Your task to perform on an android device: empty trash in the gmail app Image 0: 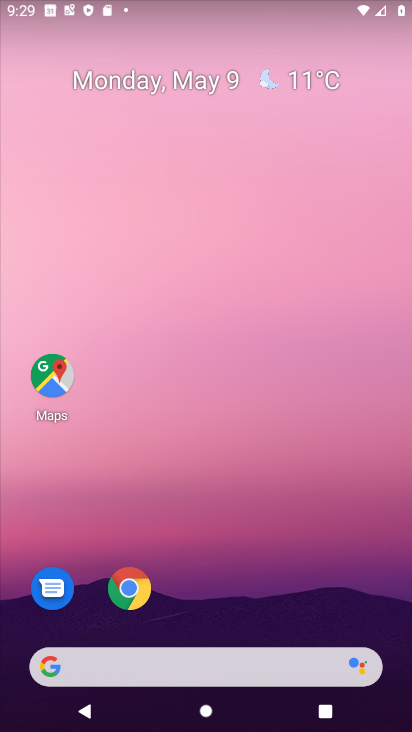
Step 0: drag from (187, 667) to (313, 82)
Your task to perform on an android device: empty trash in the gmail app Image 1: 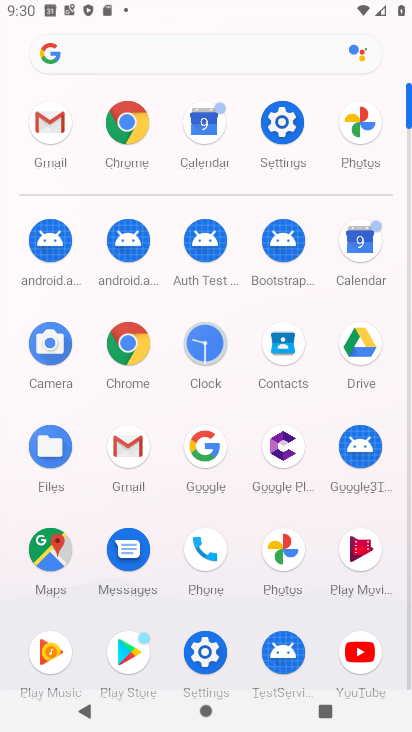
Step 1: click (56, 133)
Your task to perform on an android device: empty trash in the gmail app Image 2: 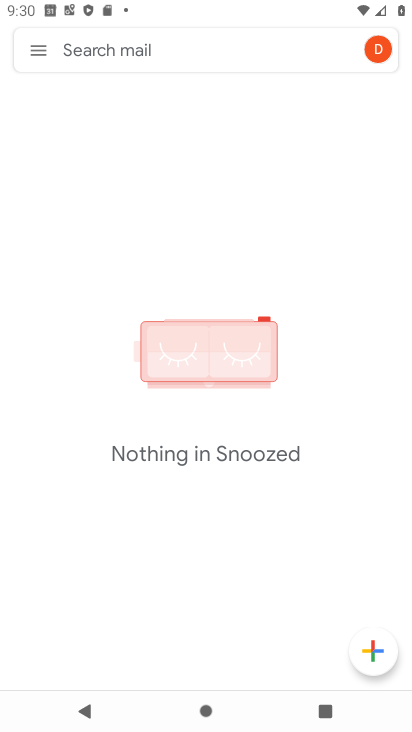
Step 2: click (35, 53)
Your task to perform on an android device: empty trash in the gmail app Image 3: 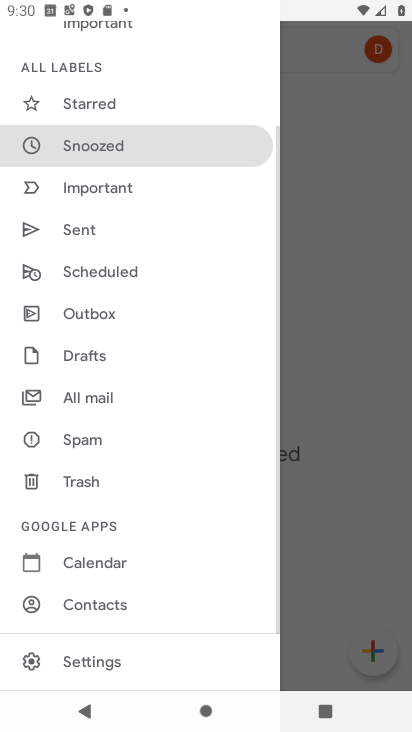
Step 3: click (82, 487)
Your task to perform on an android device: empty trash in the gmail app Image 4: 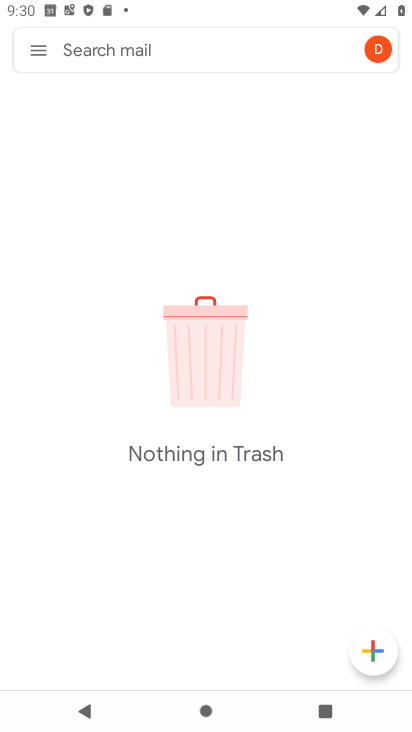
Step 4: task complete